Your task to perform on an android device: Search for sushi restaurants on Maps Image 0: 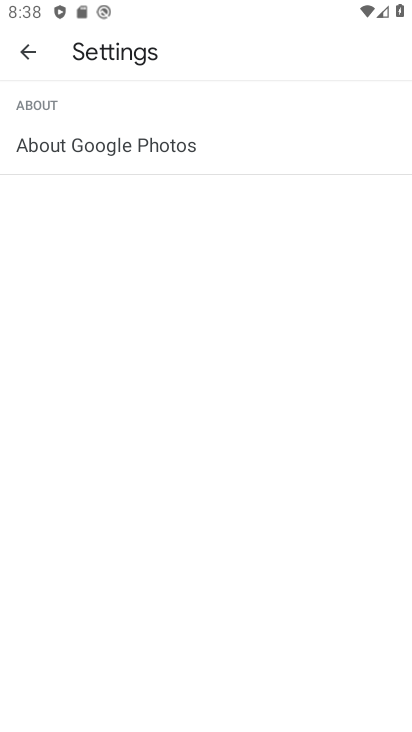
Step 0: press home button
Your task to perform on an android device: Search for sushi restaurants on Maps Image 1: 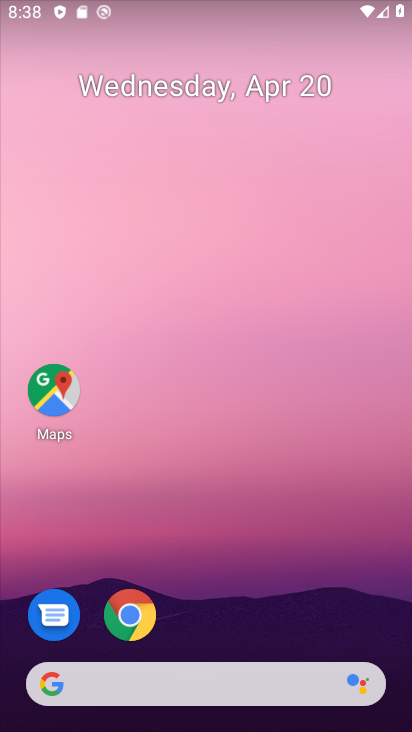
Step 1: click (52, 394)
Your task to perform on an android device: Search for sushi restaurants on Maps Image 2: 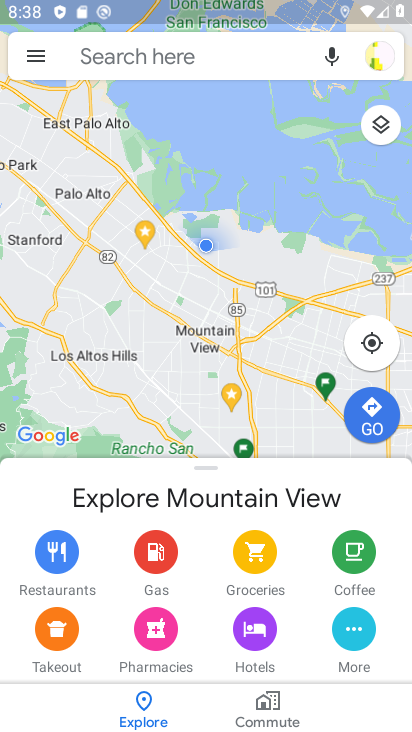
Step 2: click (207, 58)
Your task to perform on an android device: Search for sushi restaurants on Maps Image 3: 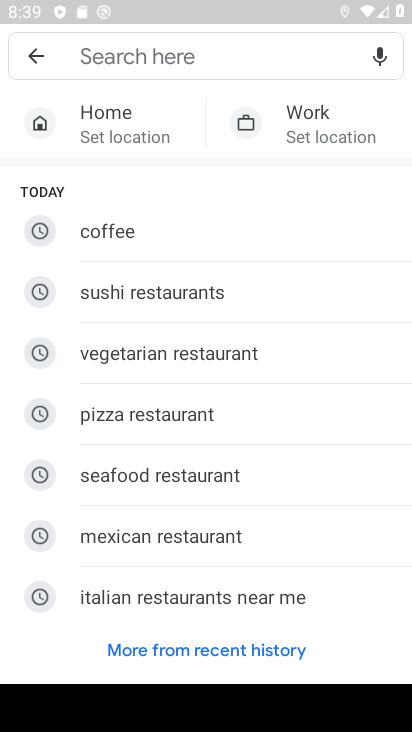
Step 3: type "sushi restaurants"
Your task to perform on an android device: Search for sushi restaurants on Maps Image 4: 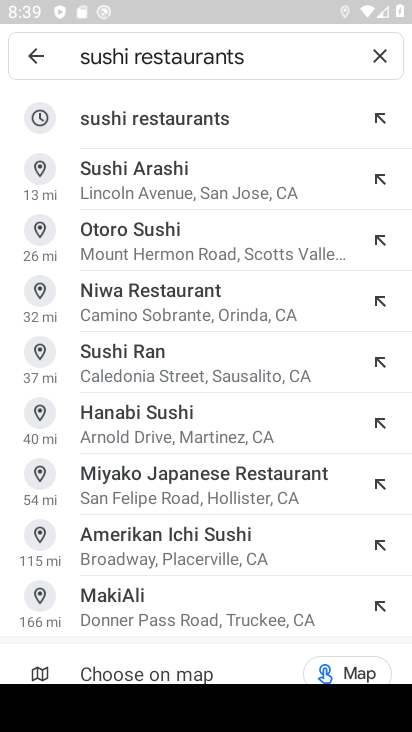
Step 4: click (188, 118)
Your task to perform on an android device: Search for sushi restaurants on Maps Image 5: 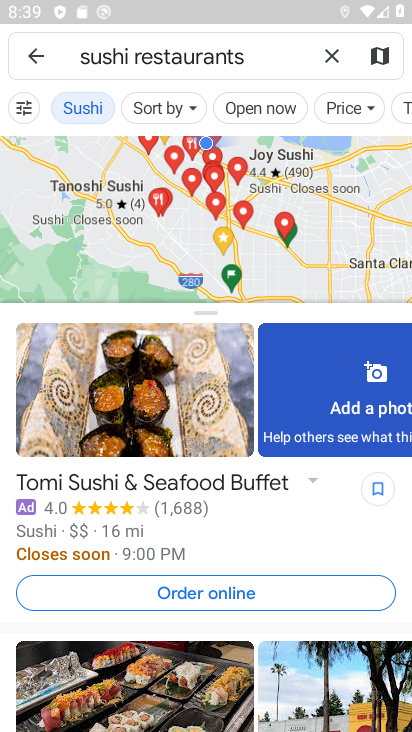
Step 5: task complete